Your task to perform on an android device: change the clock display to show seconds Image 0: 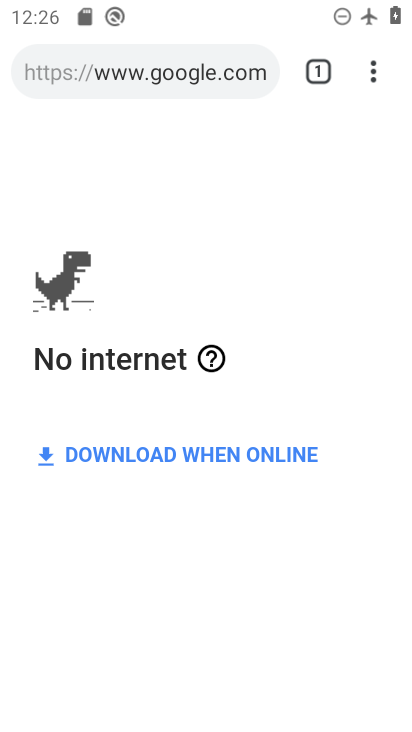
Step 0: press home button
Your task to perform on an android device: change the clock display to show seconds Image 1: 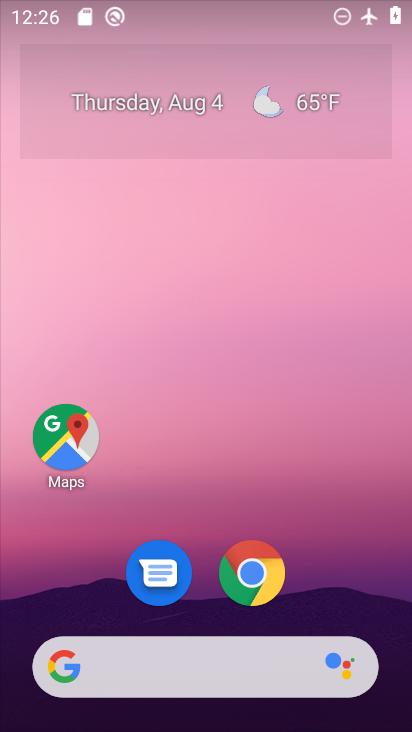
Step 1: drag from (377, 604) to (333, 121)
Your task to perform on an android device: change the clock display to show seconds Image 2: 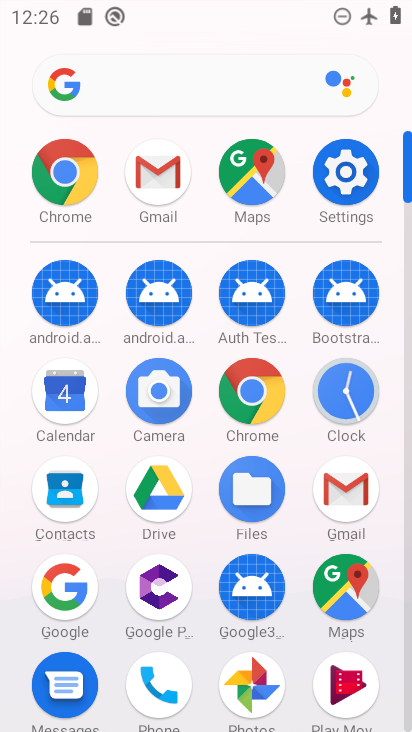
Step 2: click (345, 396)
Your task to perform on an android device: change the clock display to show seconds Image 3: 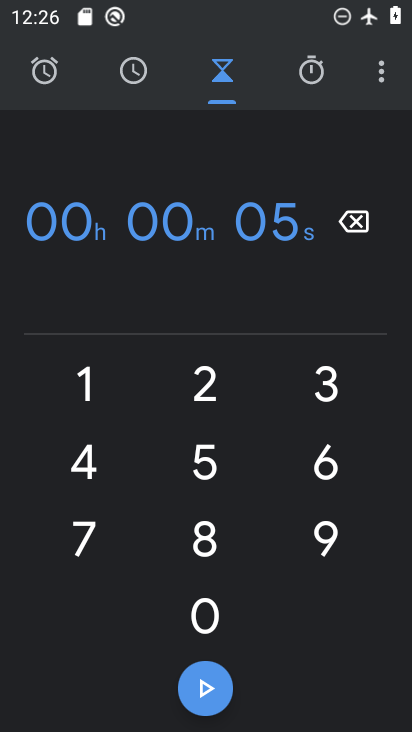
Step 3: click (383, 61)
Your task to perform on an android device: change the clock display to show seconds Image 4: 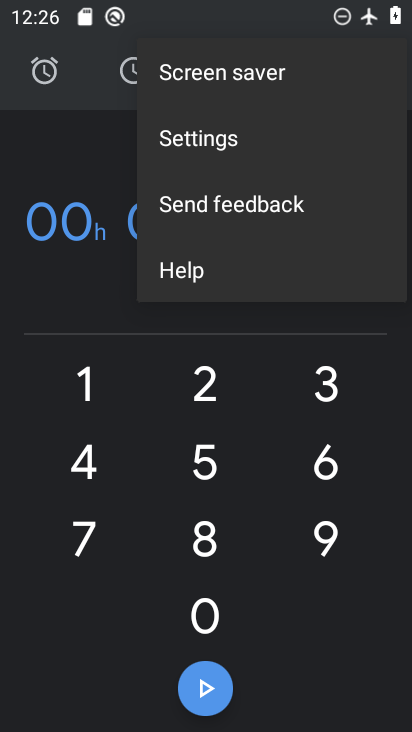
Step 4: click (195, 161)
Your task to perform on an android device: change the clock display to show seconds Image 5: 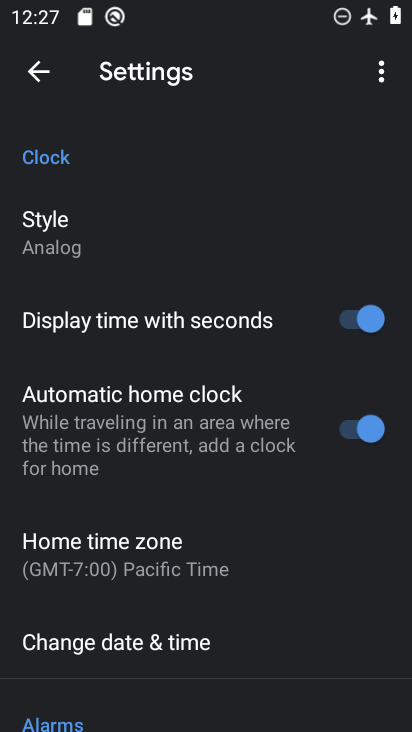
Step 5: task complete